Your task to perform on an android device: Open the calendar and show me this week's events Image 0: 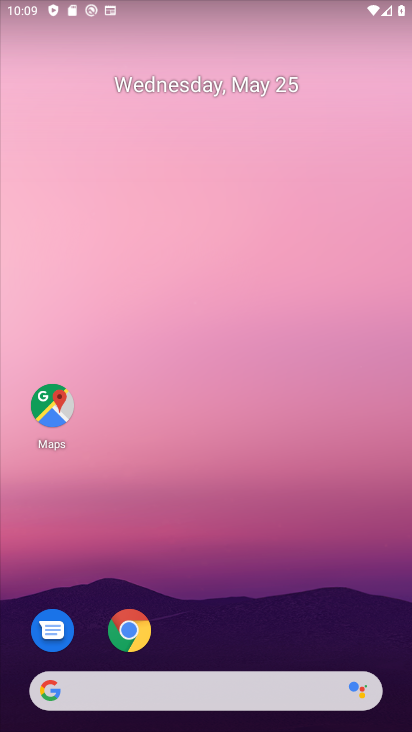
Step 0: drag from (377, 506) to (333, 305)
Your task to perform on an android device: Open the calendar and show me this week's events Image 1: 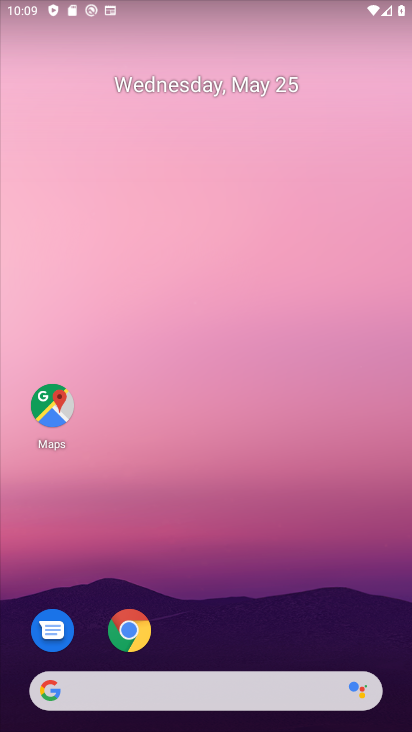
Step 1: drag from (390, 691) to (328, 161)
Your task to perform on an android device: Open the calendar and show me this week's events Image 2: 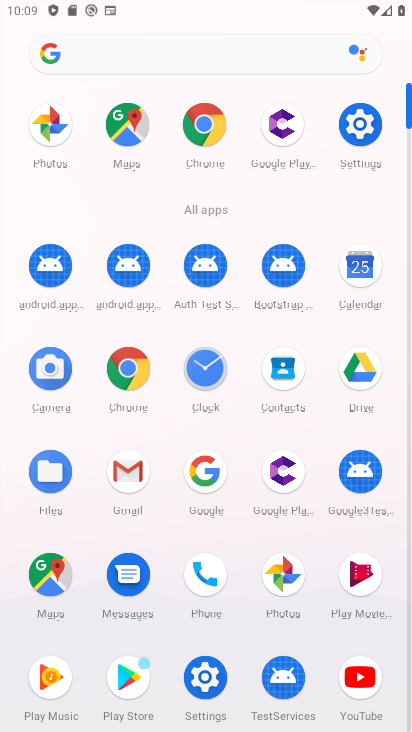
Step 2: click (360, 266)
Your task to perform on an android device: Open the calendar and show me this week's events Image 3: 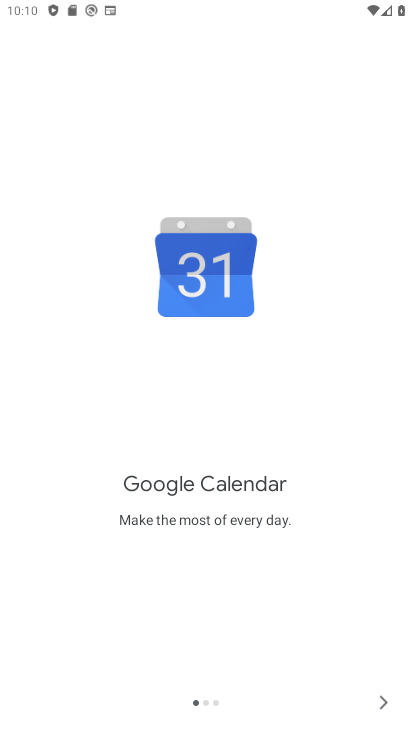
Step 3: click (389, 698)
Your task to perform on an android device: Open the calendar and show me this week's events Image 4: 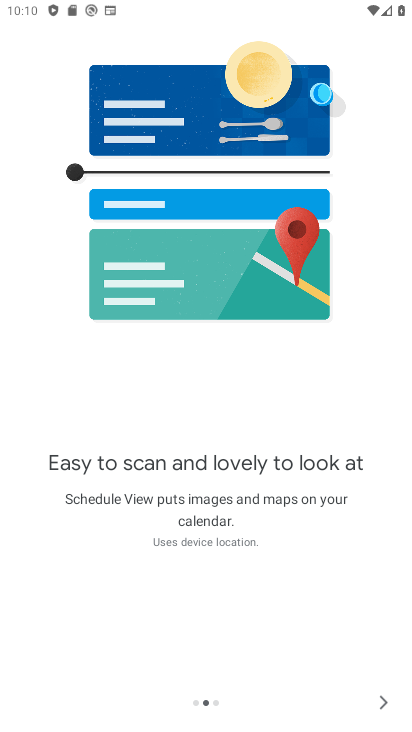
Step 4: click (388, 698)
Your task to perform on an android device: Open the calendar and show me this week's events Image 5: 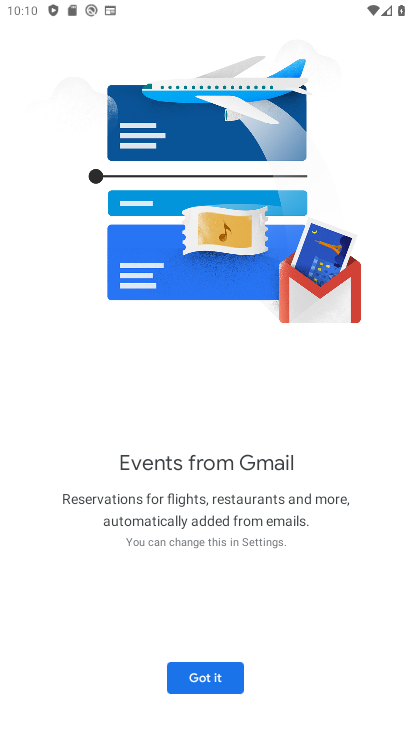
Step 5: click (181, 676)
Your task to perform on an android device: Open the calendar and show me this week's events Image 6: 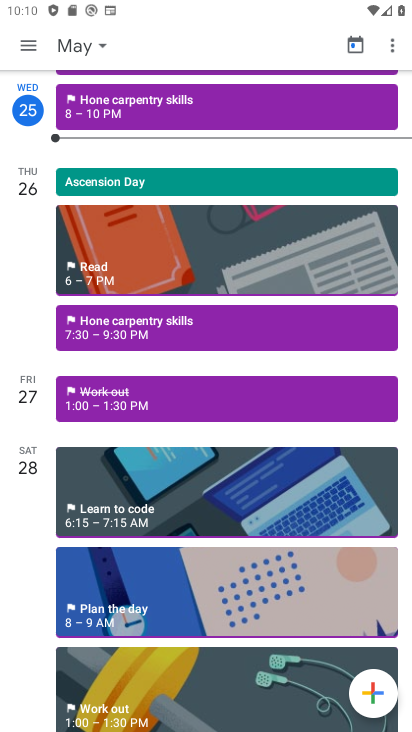
Step 6: click (101, 49)
Your task to perform on an android device: Open the calendar and show me this week's events Image 7: 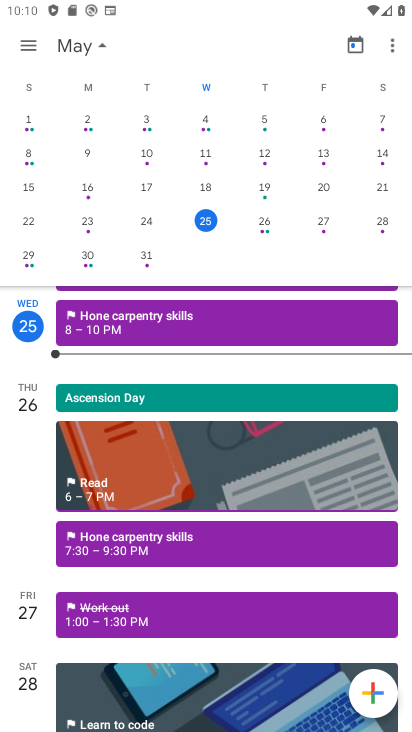
Step 7: click (146, 252)
Your task to perform on an android device: Open the calendar and show me this week's events Image 8: 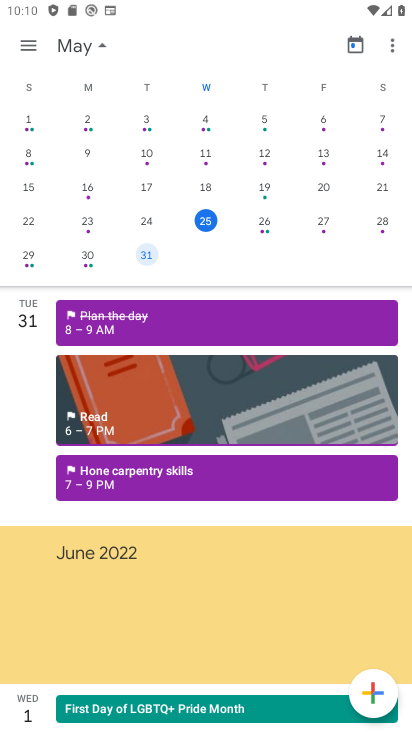
Step 8: click (24, 46)
Your task to perform on an android device: Open the calendar and show me this week's events Image 9: 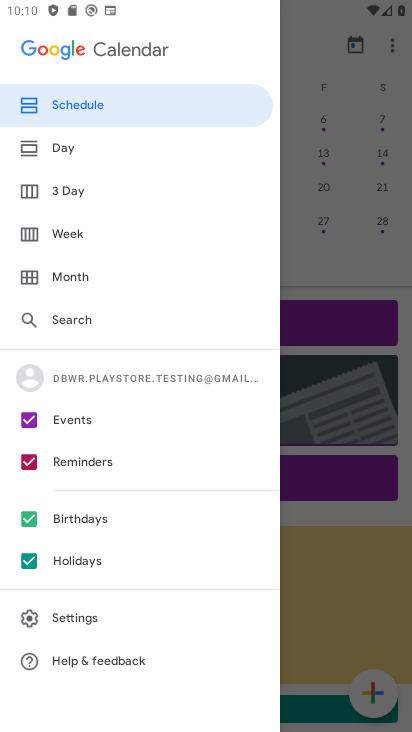
Step 9: click (68, 228)
Your task to perform on an android device: Open the calendar and show me this week's events Image 10: 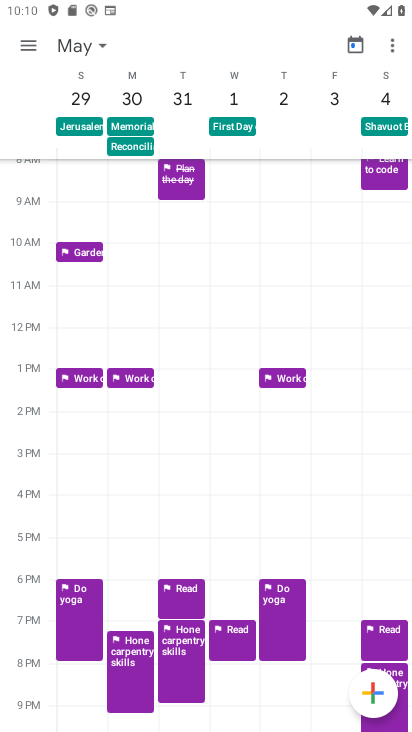
Step 10: task complete